Your task to perform on an android device: clear history in the chrome app Image 0: 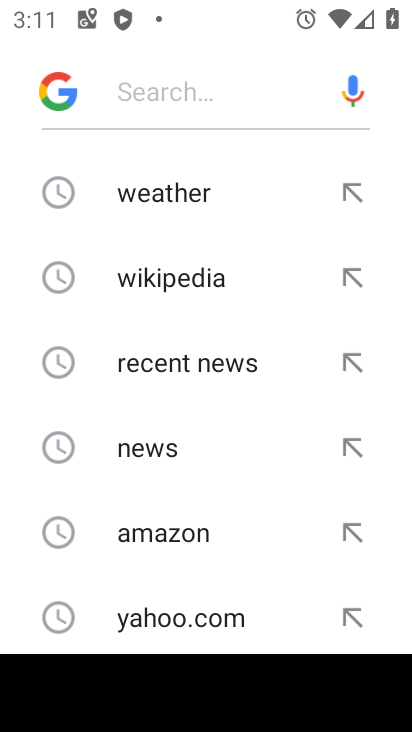
Step 0: press home button
Your task to perform on an android device: clear history in the chrome app Image 1: 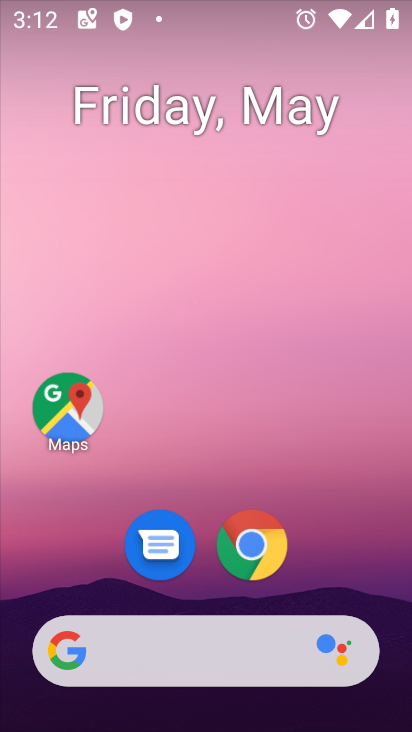
Step 1: click (253, 554)
Your task to perform on an android device: clear history in the chrome app Image 2: 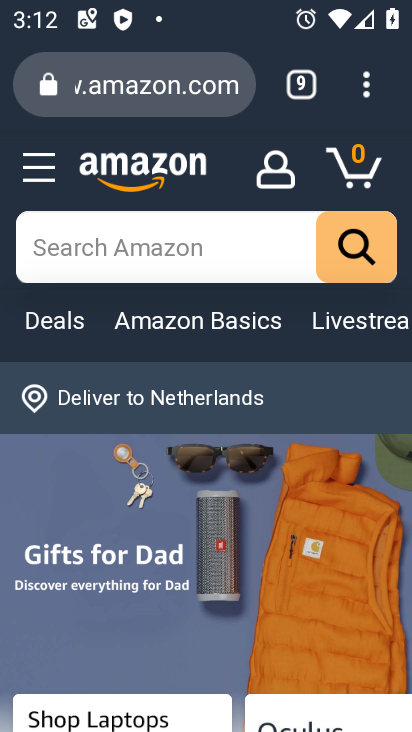
Step 2: click (371, 89)
Your task to perform on an android device: clear history in the chrome app Image 3: 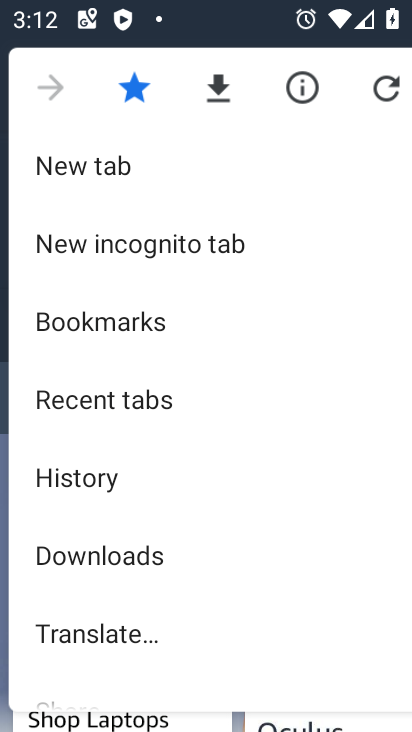
Step 3: click (96, 468)
Your task to perform on an android device: clear history in the chrome app Image 4: 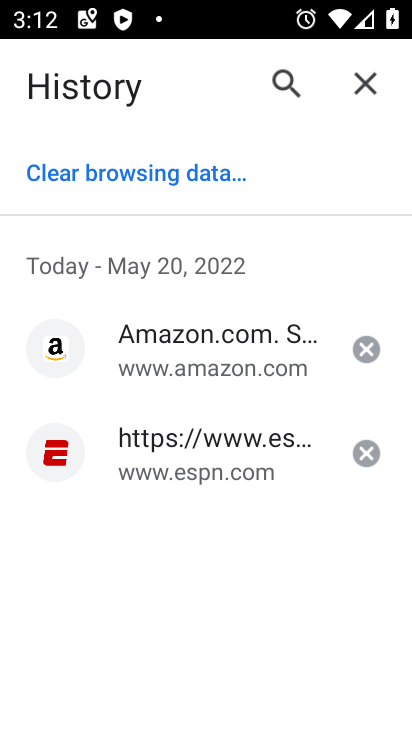
Step 4: click (201, 168)
Your task to perform on an android device: clear history in the chrome app Image 5: 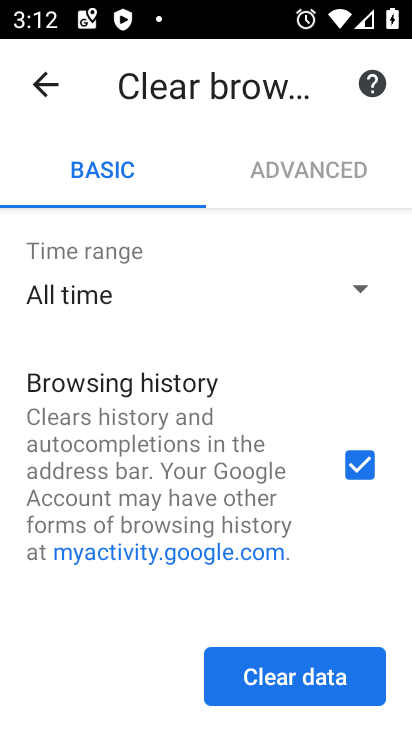
Step 5: click (275, 667)
Your task to perform on an android device: clear history in the chrome app Image 6: 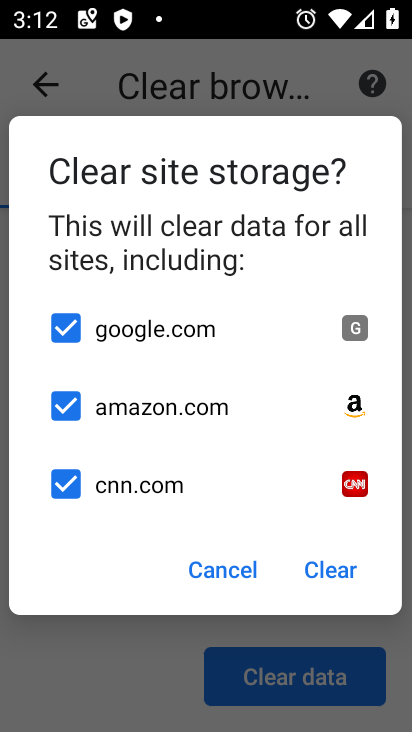
Step 6: click (337, 566)
Your task to perform on an android device: clear history in the chrome app Image 7: 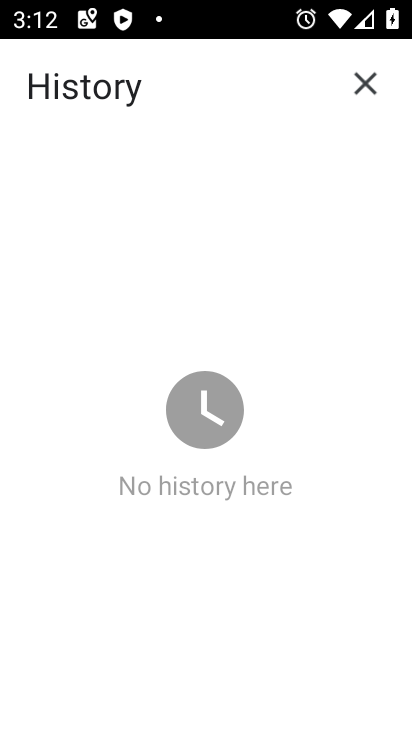
Step 7: task complete